Your task to perform on an android device: toggle priority inbox in the gmail app Image 0: 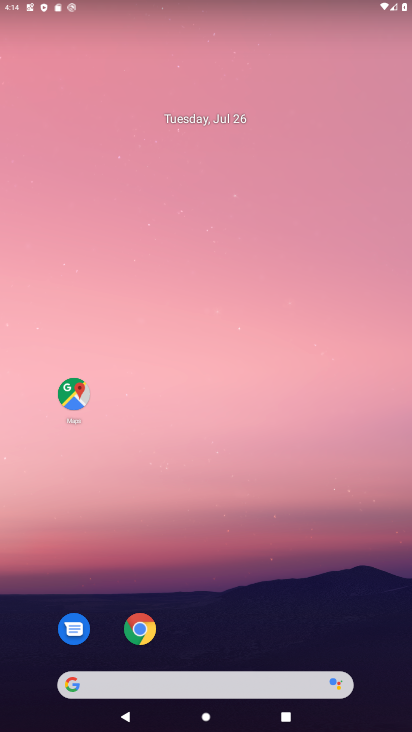
Step 0: drag from (312, 599) to (217, 292)
Your task to perform on an android device: toggle priority inbox in the gmail app Image 1: 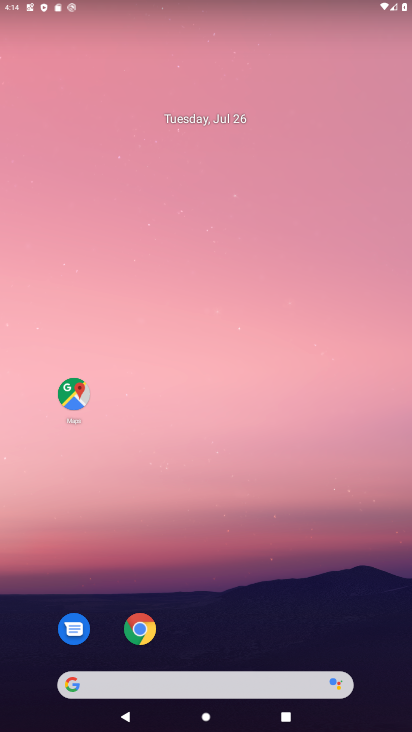
Step 1: drag from (280, 609) to (197, 121)
Your task to perform on an android device: toggle priority inbox in the gmail app Image 2: 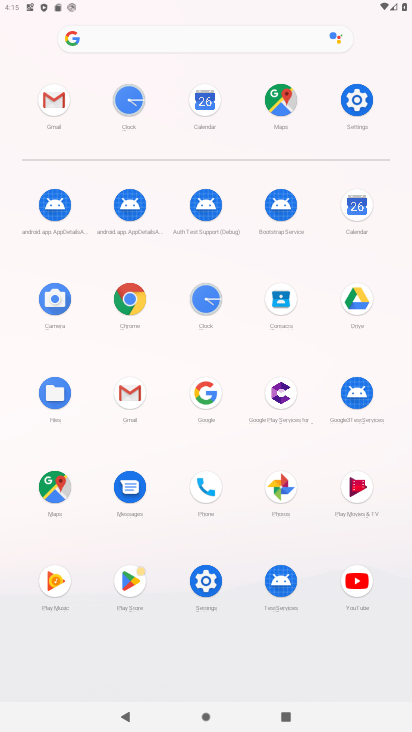
Step 2: click (122, 397)
Your task to perform on an android device: toggle priority inbox in the gmail app Image 3: 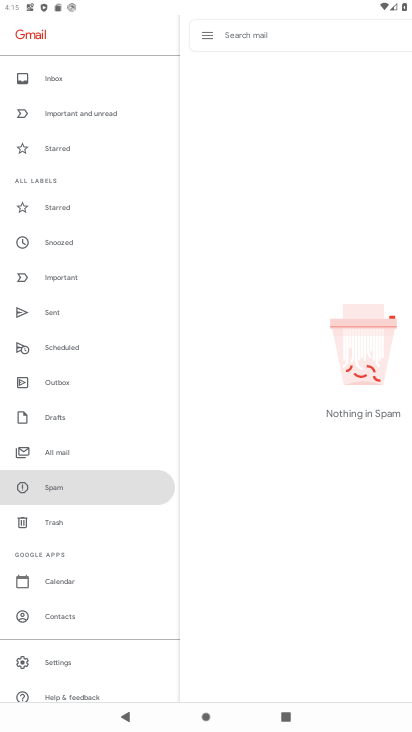
Step 3: click (72, 656)
Your task to perform on an android device: toggle priority inbox in the gmail app Image 4: 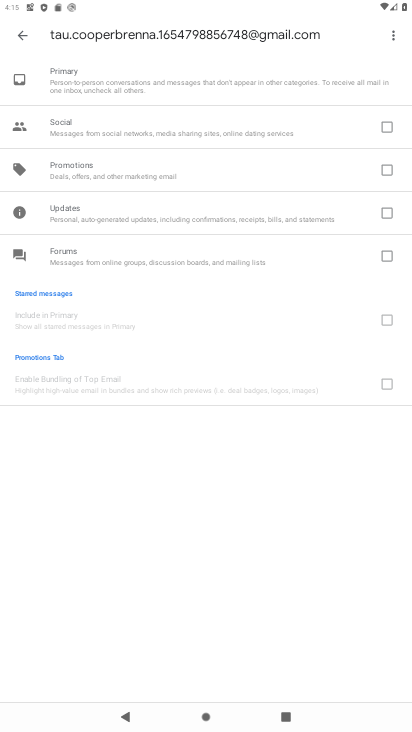
Step 4: click (22, 33)
Your task to perform on an android device: toggle priority inbox in the gmail app Image 5: 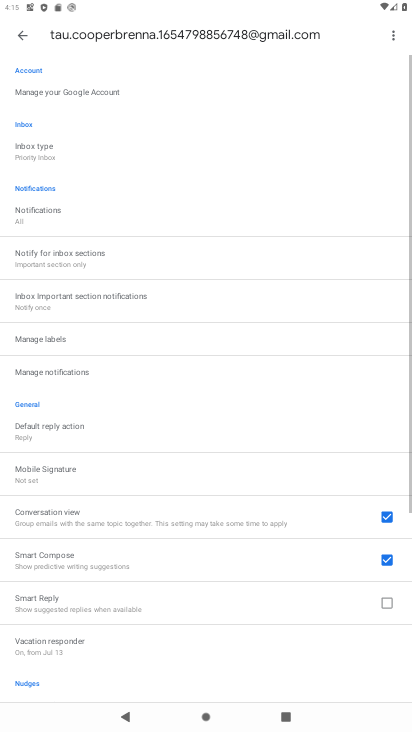
Step 5: click (92, 148)
Your task to perform on an android device: toggle priority inbox in the gmail app Image 6: 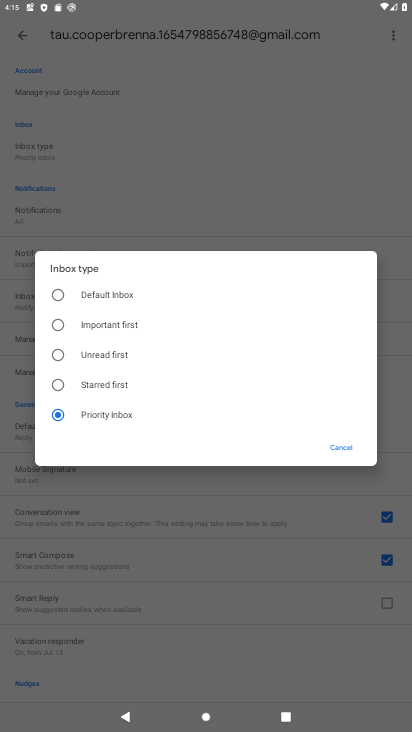
Step 6: click (154, 188)
Your task to perform on an android device: toggle priority inbox in the gmail app Image 7: 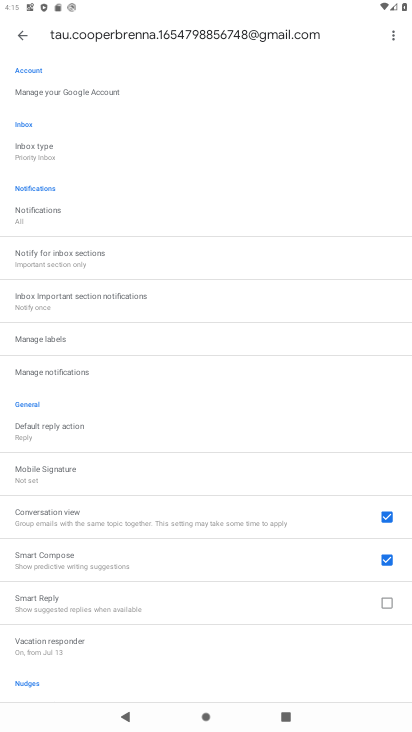
Step 7: task complete